Your task to perform on an android device: move an email to a new category in the gmail app Image 0: 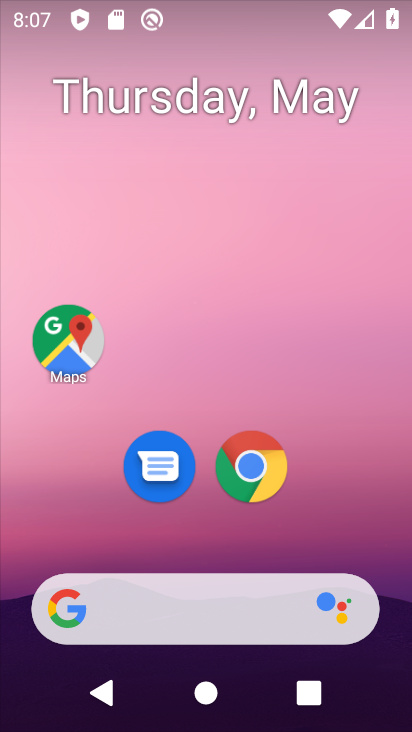
Step 0: drag from (188, 572) to (172, 74)
Your task to perform on an android device: move an email to a new category in the gmail app Image 1: 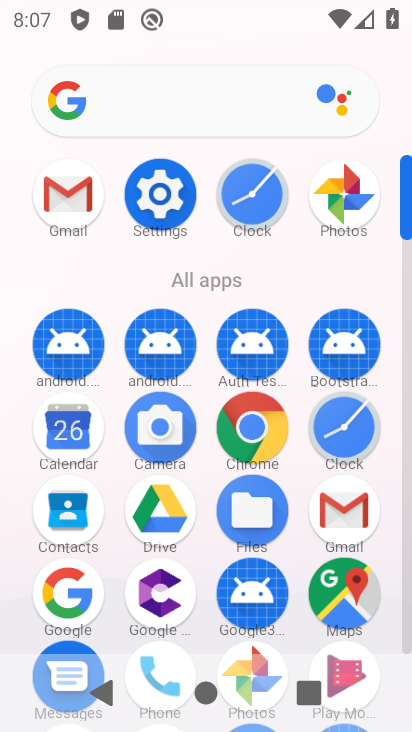
Step 1: click (356, 509)
Your task to perform on an android device: move an email to a new category in the gmail app Image 2: 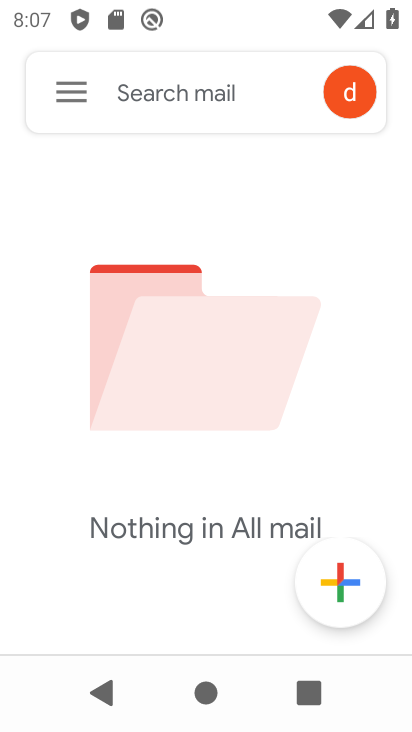
Step 2: click (66, 92)
Your task to perform on an android device: move an email to a new category in the gmail app Image 3: 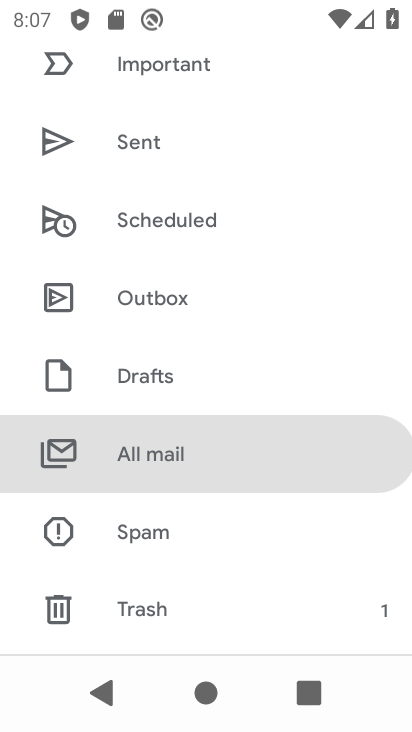
Step 3: click (202, 463)
Your task to perform on an android device: move an email to a new category in the gmail app Image 4: 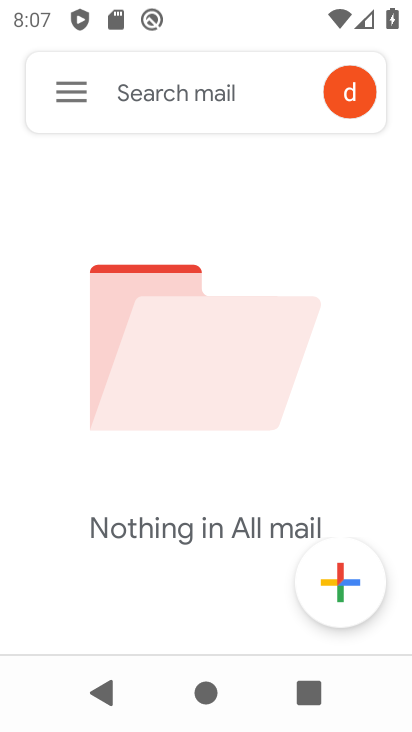
Step 4: task complete